Your task to perform on an android device: change alarm snooze length Image 0: 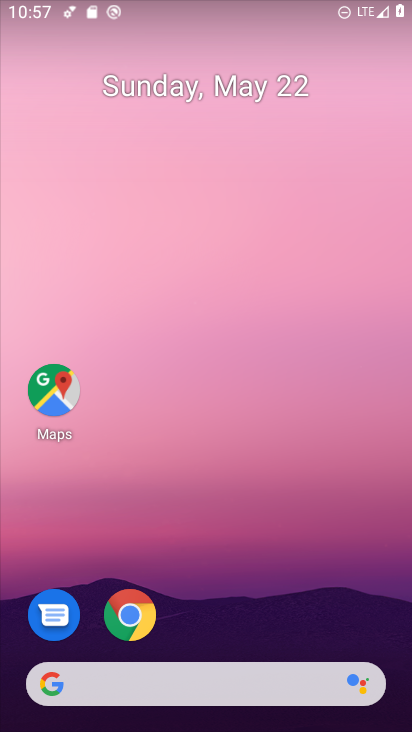
Step 0: drag from (268, 619) to (261, 132)
Your task to perform on an android device: change alarm snooze length Image 1: 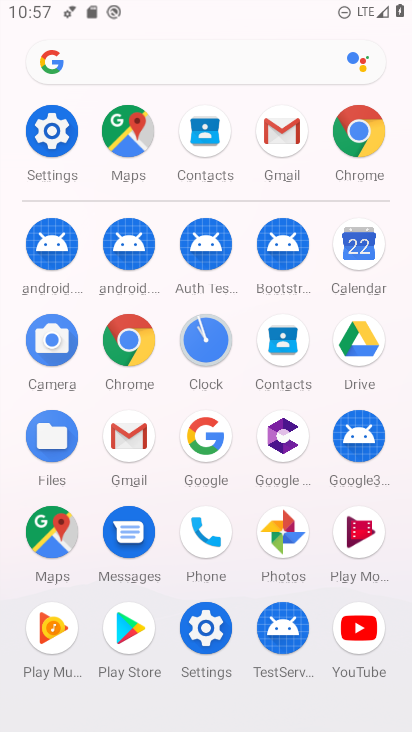
Step 1: click (205, 339)
Your task to perform on an android device: change alarm snooze length Image 2: 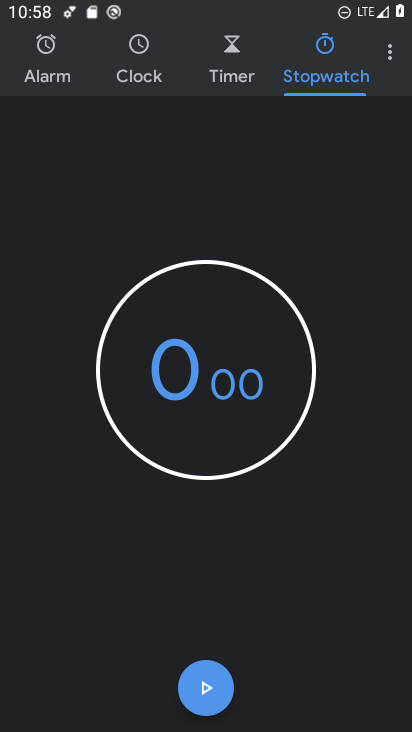
Step 2: click (384, 55)
Your task to perform on an android device: change alarm snooze length Image 3: 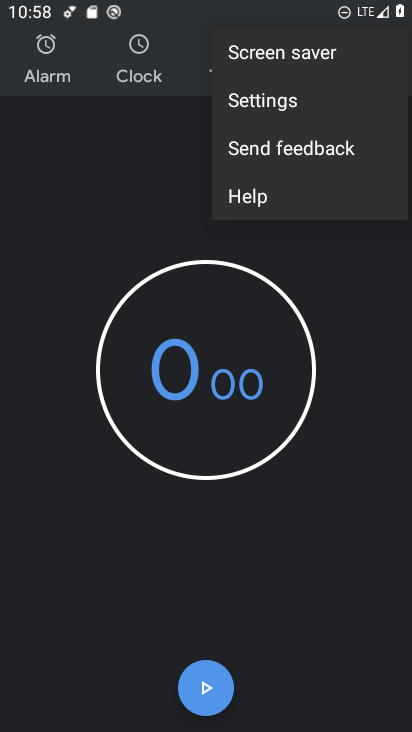
Step 3: click (285, 112)
Your task to perform on an android device: change alarm snooze length Image 4: 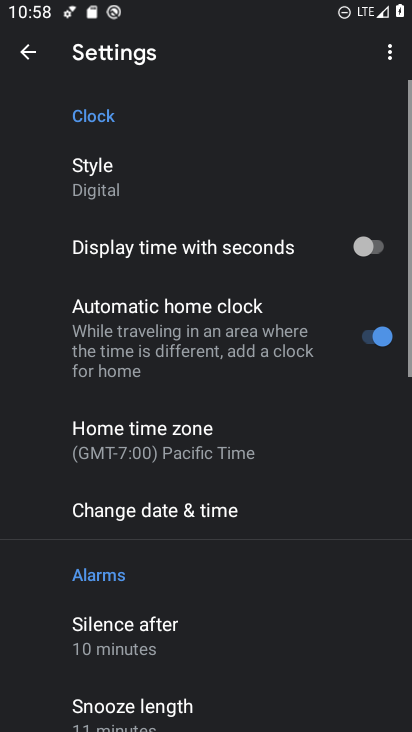
Step 4: drag from (184, 597) to (241, 113)
Your task to perform on an android device: change alarm snooze length Image 5: 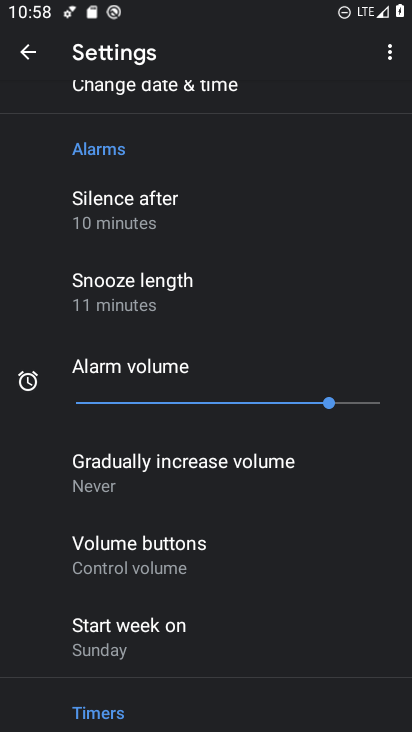
Step 5: drag from (219, 575) to (259, 729)
Your task to perform on an android device: change alarm snooze length Image 6: 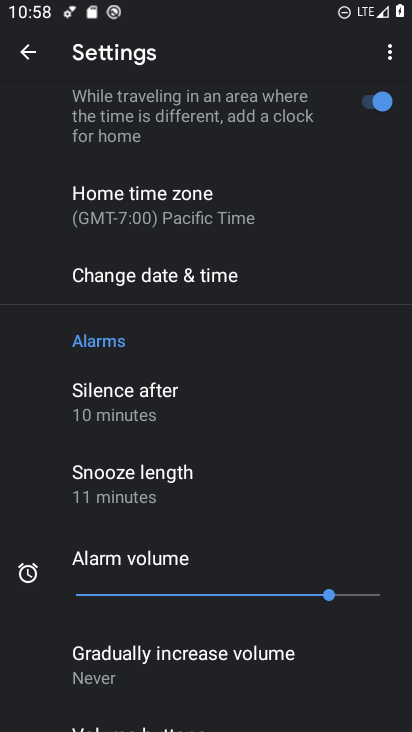
Step 6: click (174, 466)
Your task to perform on an android device: change alarm snooze length Image 7: 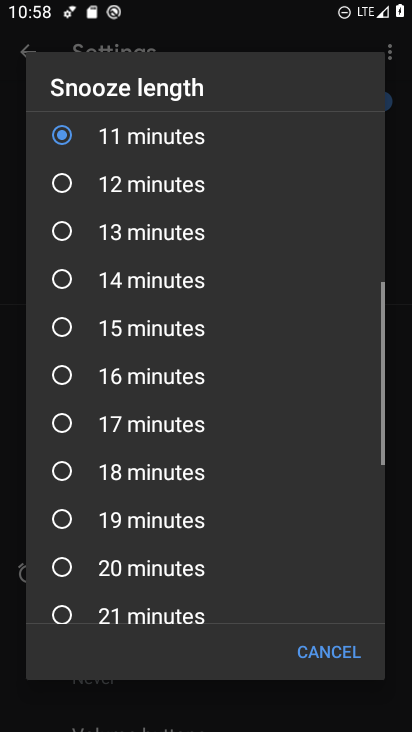
Step 7: click (192, 196)
Your task to perform on an android device: change alarm snooze length Image 8: 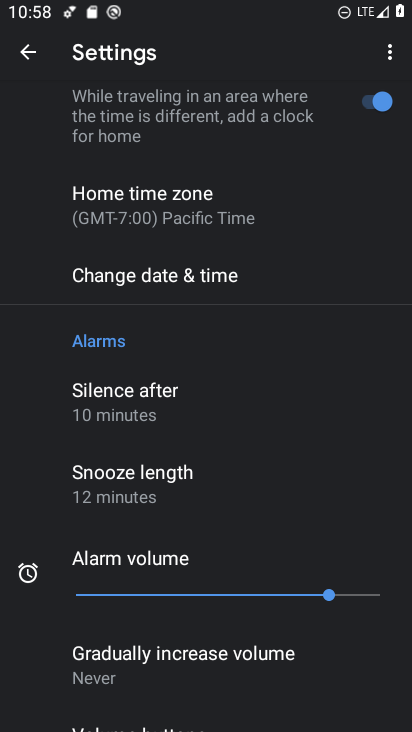
Step 8: task complete